Your task to perform on an android device: toggle show notifications on the lock screen Image 0: 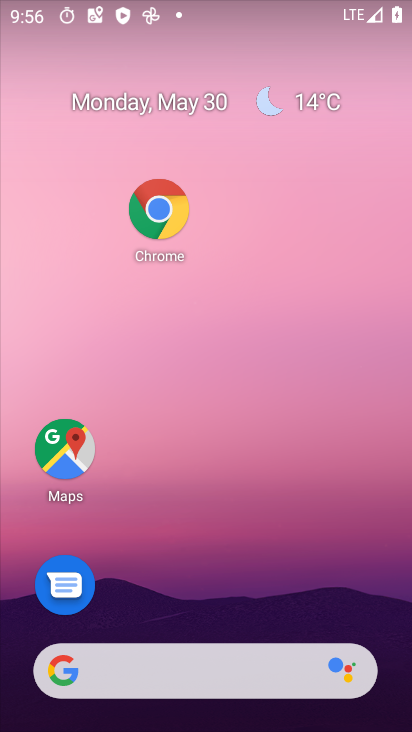
Step 0: drag from (210, 568) to (366, 142)
Your task to perform on an android device: toggle show notifications on the lock screen Image 1: 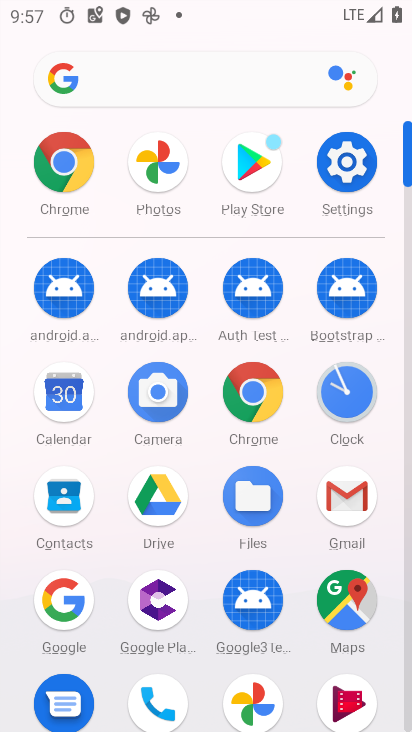
Step 1: click (351, 166)
Your task to perform on an android device: toggle show notifications on the lock screen Image 2: 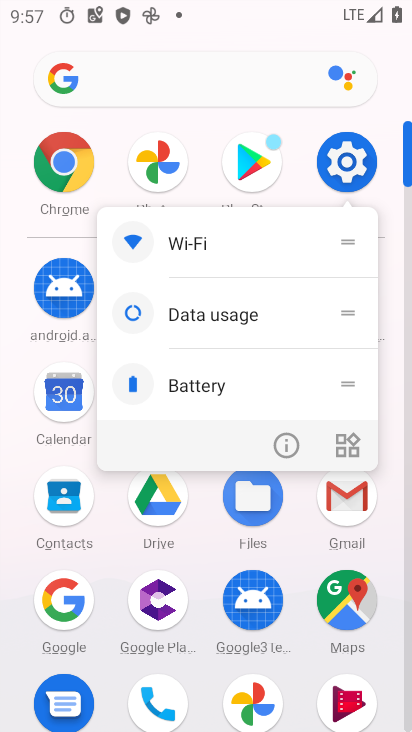
Step 2: click (296, 425)
Your task to perform on an android device: toggle show notifications on the lock screen Image 3: 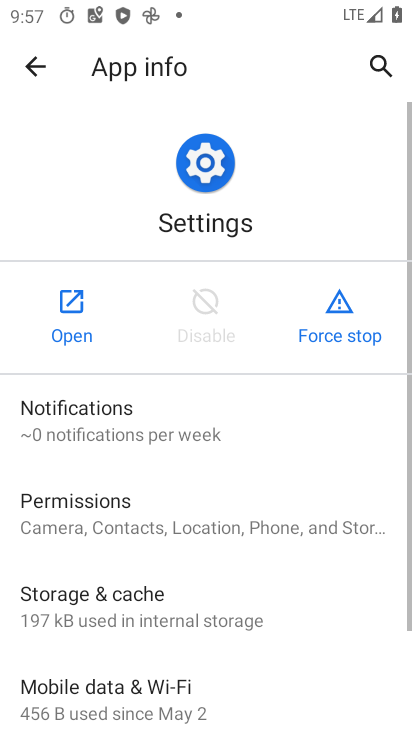
Step 3: click (68, 302)
Your task to perform on an android device: toggle show notifications on the lock screen Image 4: 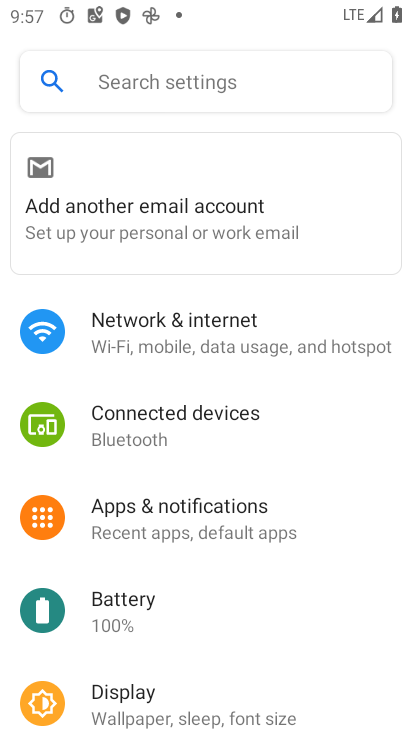
Step 4: click (191, 504)
Your task to perform on an android device: toggle show notifications on the lock screen Image 5: 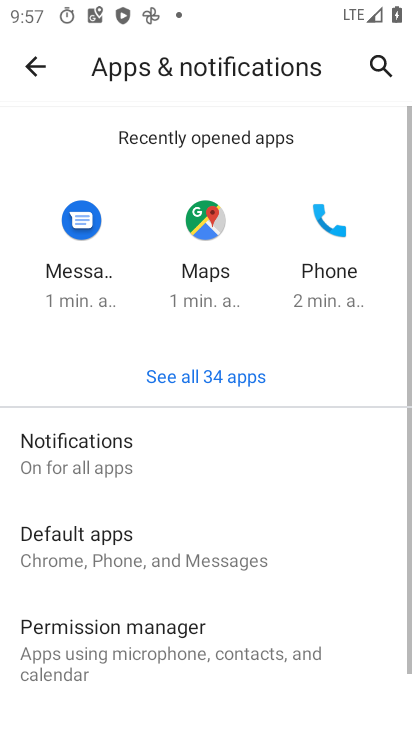
Step 5: click (186, 457)
Your task to perform on an android device: toggle show notifications on the lock screen Image 6: 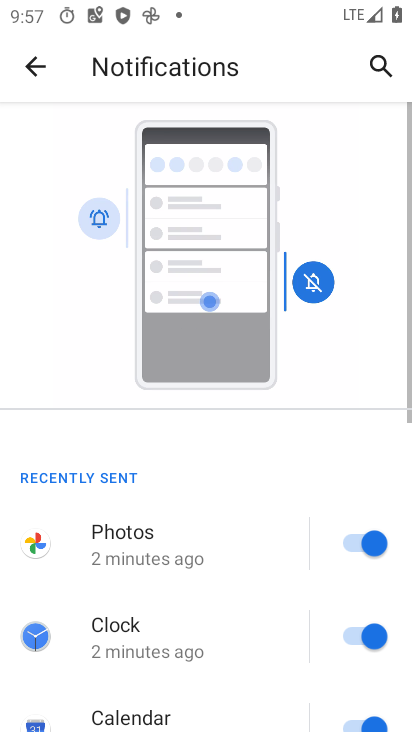
Step 6: drag from (201, 547) to (289, 13)
Your task to perform on an android device: toggle show notifications on the lock screen Image 7: 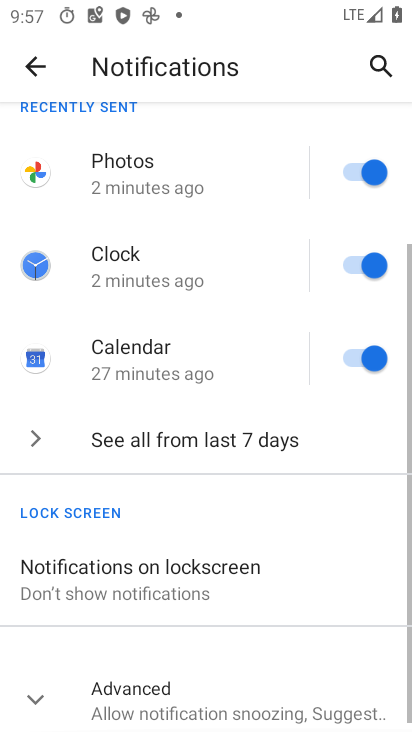
Step 7: click (172, 549)
Your task to perform on an android device: toggle show notifications on the lock screen Image 8: 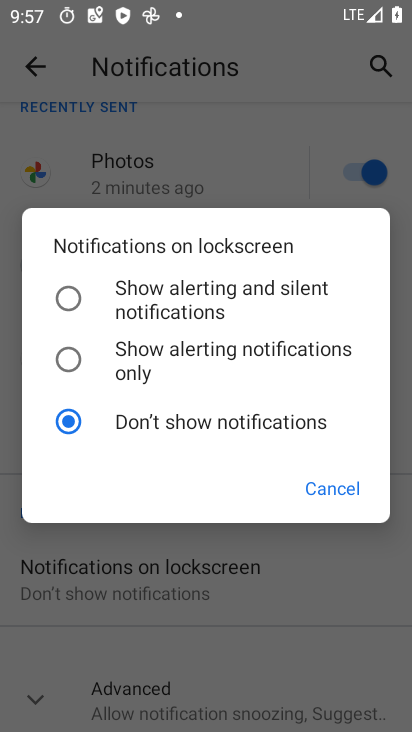
Step 8: click (143, 351)
Your task to perform on an android device: toggle show notifications on the lock screen Image 9: 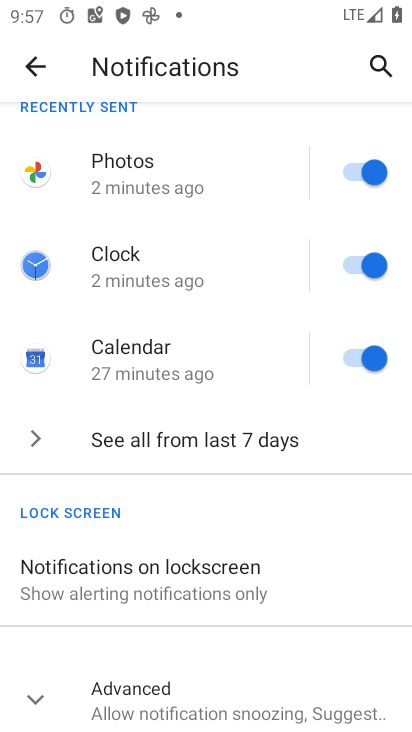
Step 9: task complete